Your task to perform on an android device: delete browsing data in the chrome app Image 0: 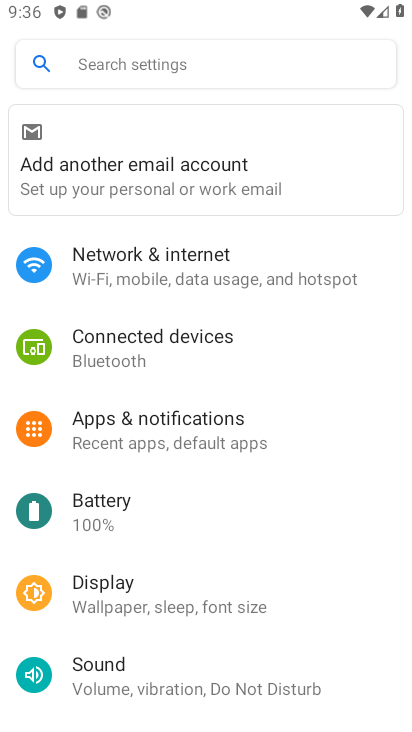
Step 0: press home button
Your task to perform on an android device: delete browsing data in the chrome app Image 1: 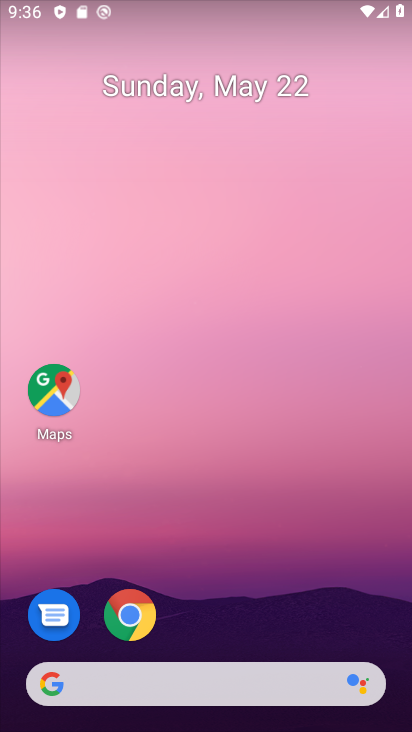
Step 1: click (129, 618)
Your task to perform on an android device: delete browsing data in the chrome app Image 2: 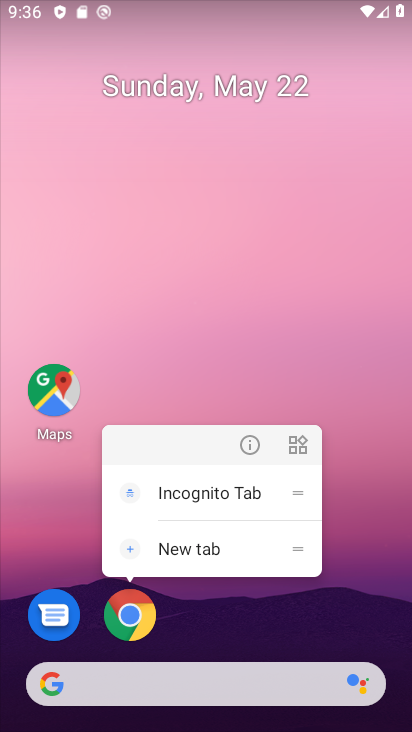
Step 2: click (129, 617)
Your task to perform on an android device: delete browsing data in the chrome app Image 3: 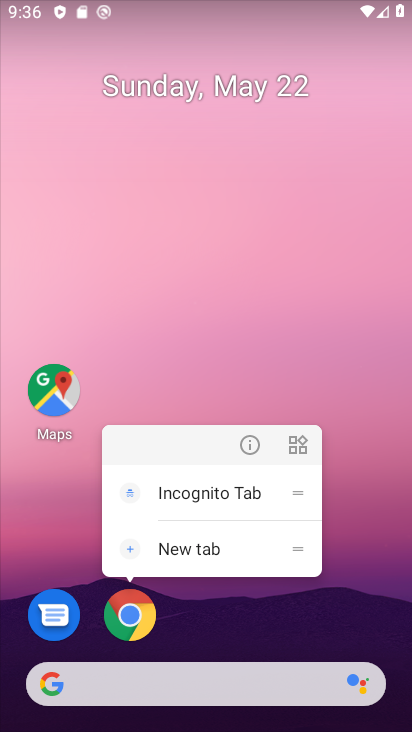
Step 3: click (130, 612)
Your task to perform on an android device: delete browsing data in the chrome app Image 4: 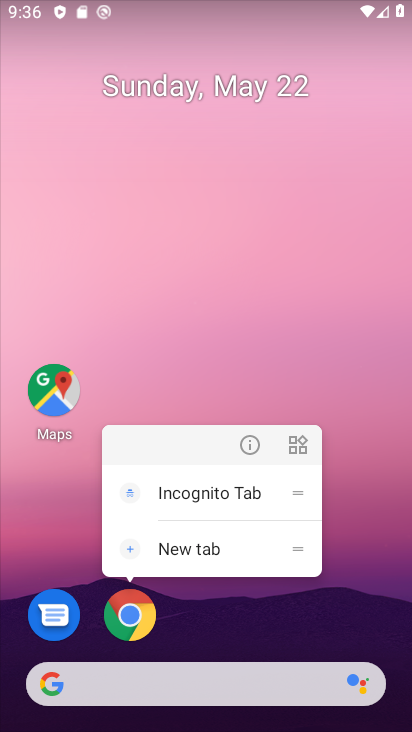
Step 4: drag from (335, 593) to (302, 101)
Your task to perform on an android device: delete browsing data in the chrome app Image 5: 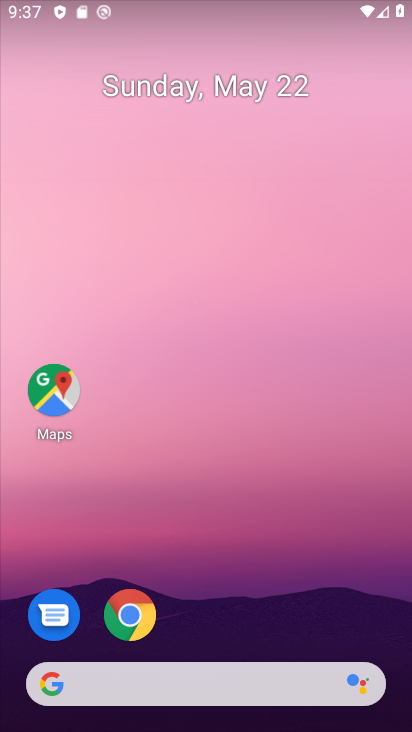
Step 5: drag from (346, 514) to (282, 81)
Your task to perform on an android device: delete browsing data in the chrome app Image 6: 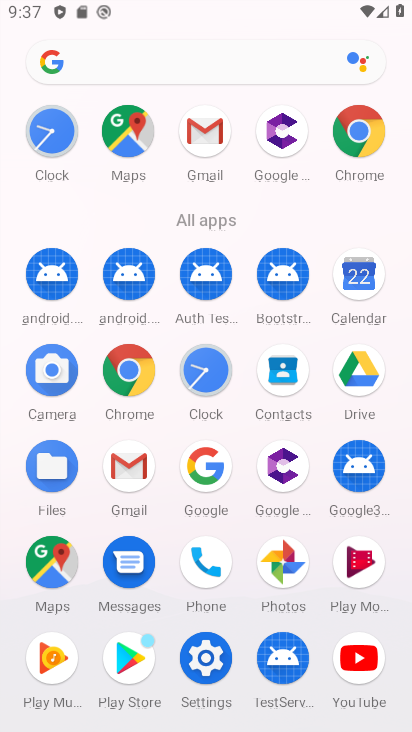
Step 6: click (126, 369)
Your task to perform on an android device: delete browsing data in the chrome app Image 7: 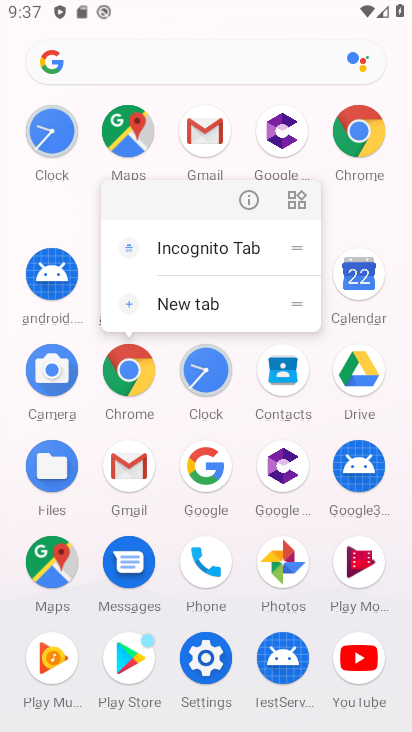
Step 7: click (161, 370)
Your task to perform on an android device: delete browsing data in the chrome app Image 8: 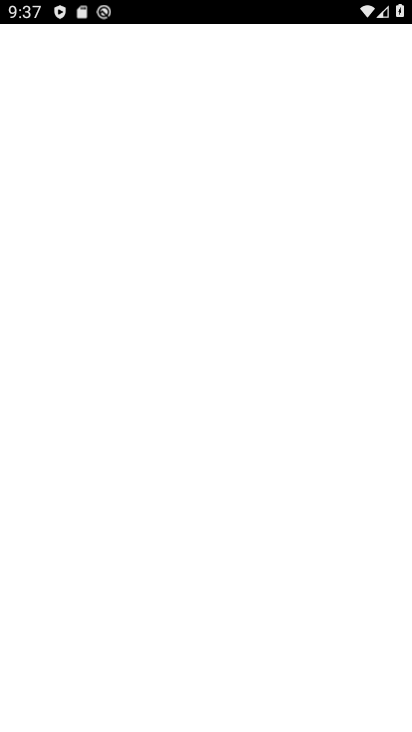
Step 8: click (147, 368)
Your task to perform on an android device: delete browsing data in the chrome app Image 9: 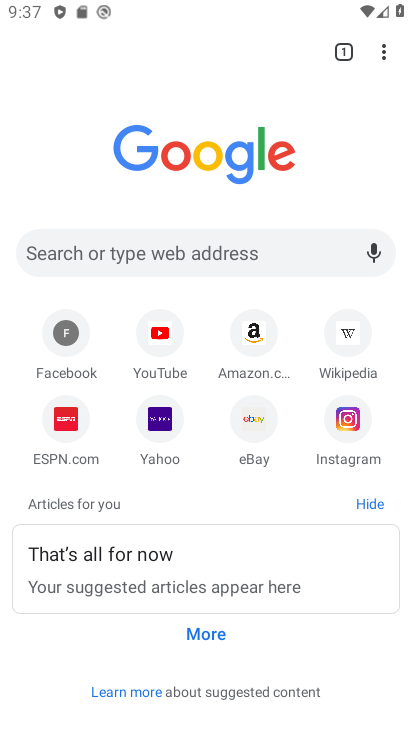
Step 9: click (390, 48)
Your task to perform on an android device: delete browsing data in the chrome app Image 10: 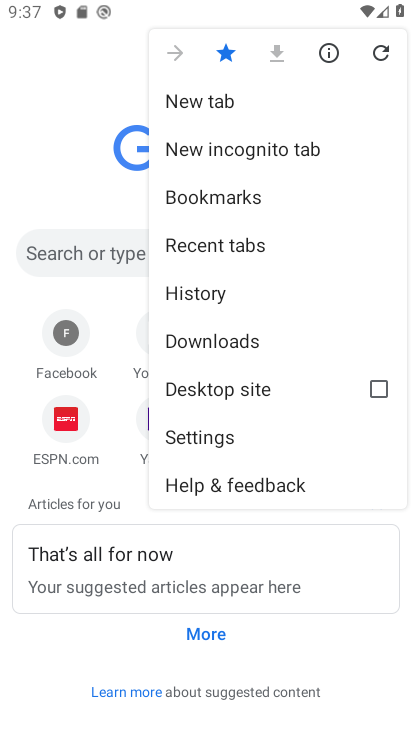
Step 10: click (206, 289)
Your task to perform on an android device: delete browsing data in the chrome app Image 11: 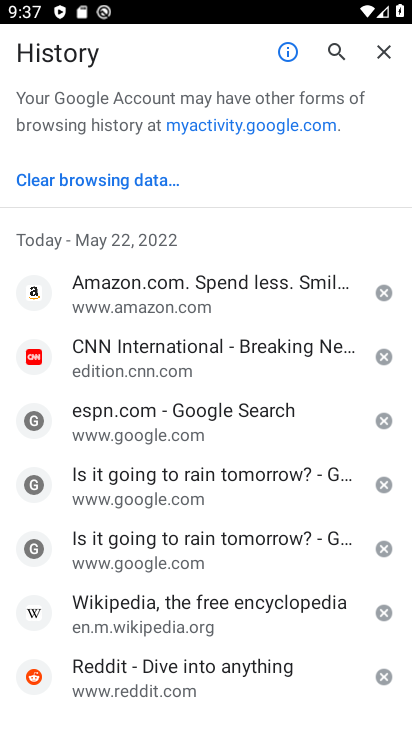
Step 11: click (116, 188)
Your task to perform on an android device: delete browsing data in the chrome app Image 12: 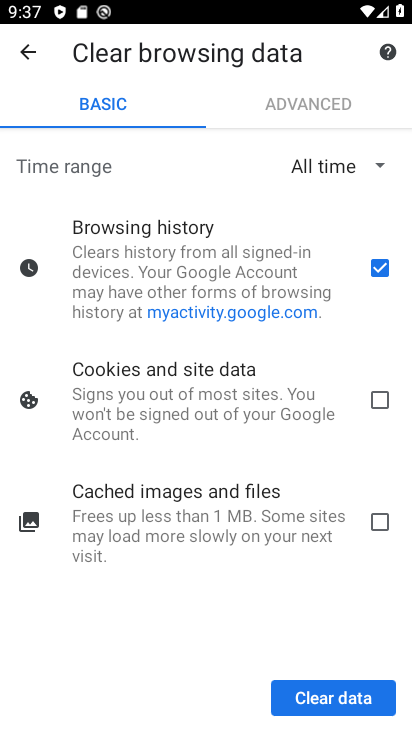
Step 12: click (382, 388)
Your task to perform on an android device: delete browsing data in the chrome app Image 13: 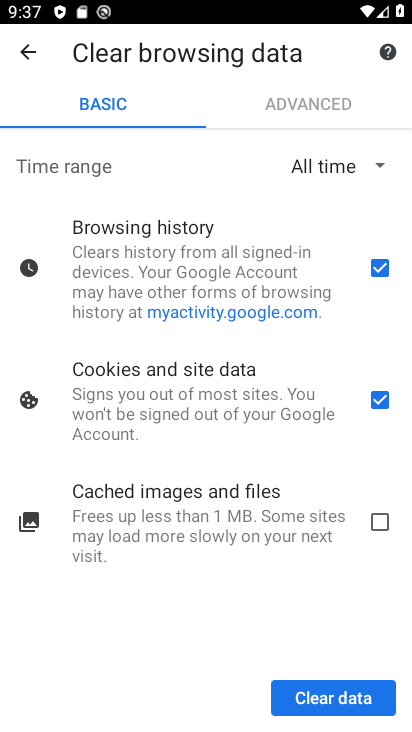
Step 13: click (370, 526)
Your task to perform on an android device: delete browsing data in the chrome app Image 14: 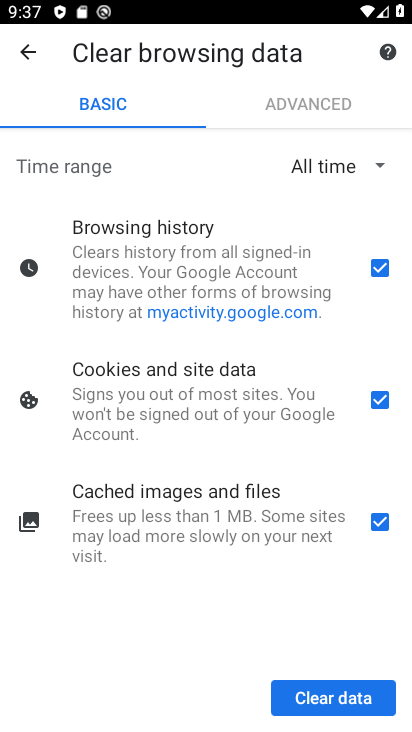
Step 14: click (363, 700)
Your task to perform on an android device: delete browsing data in the chrome app Image 15: 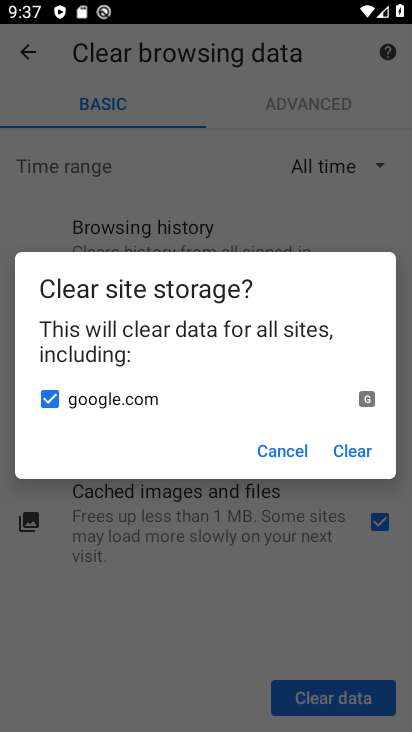
Step 15: click (353, 437)
Your task to perform on an android device: delete browsing data in the chrome app Image 16: 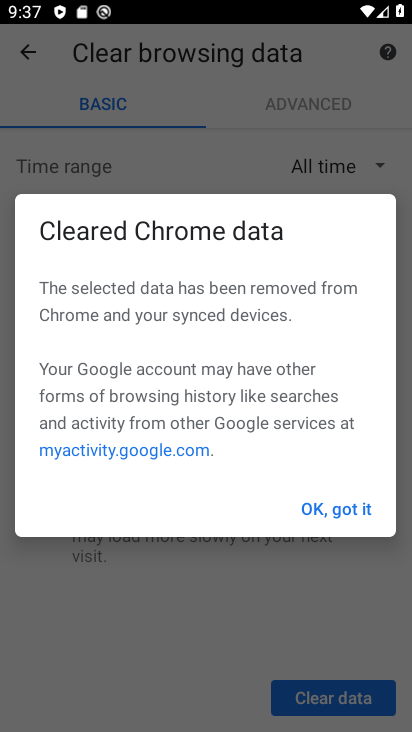
Step 16: task complete